Your task to perform on an android device: Open Reddit.com Image 0: 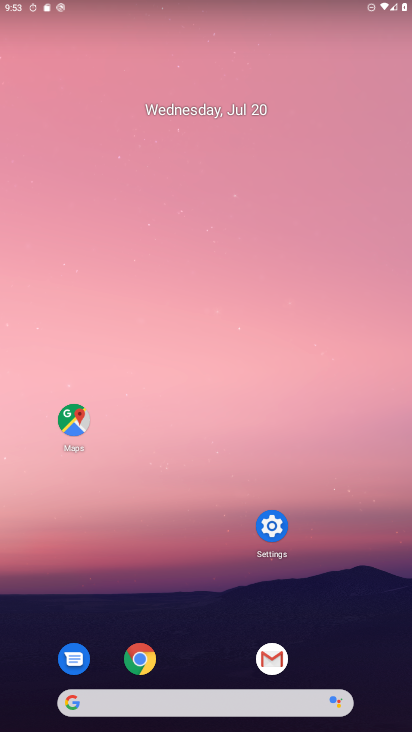
Step 0: press home button
Your task to perform on an android device: Open Reddit.com Image 1: 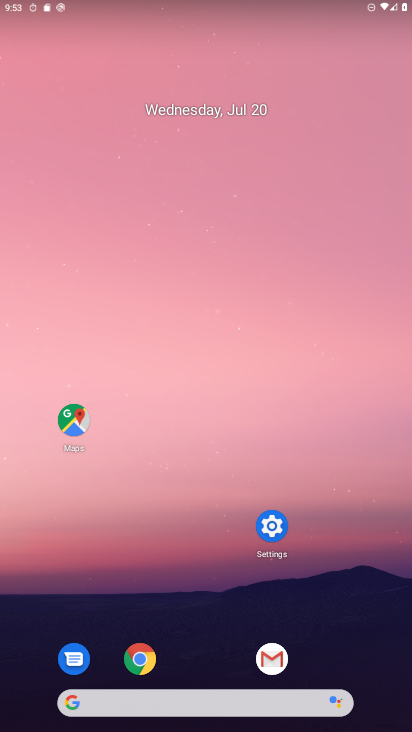
Step 1: click (144, 657)
Your task to perform on an android device: Open Reddit.com Image 2: 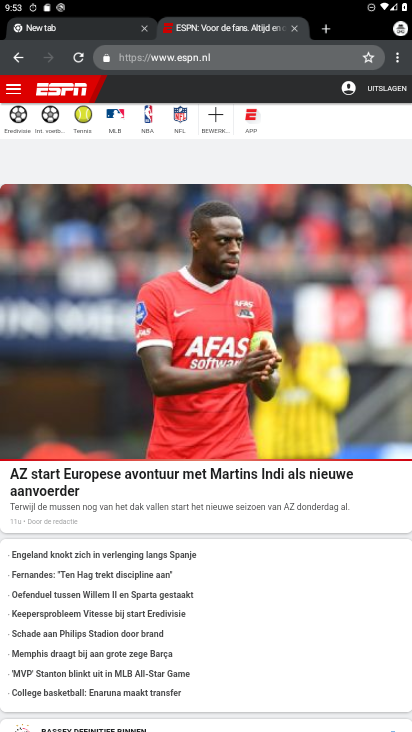
Step 2: click (148, 60)
Your task to perform on an android device: Open Reddit.com Image 3: 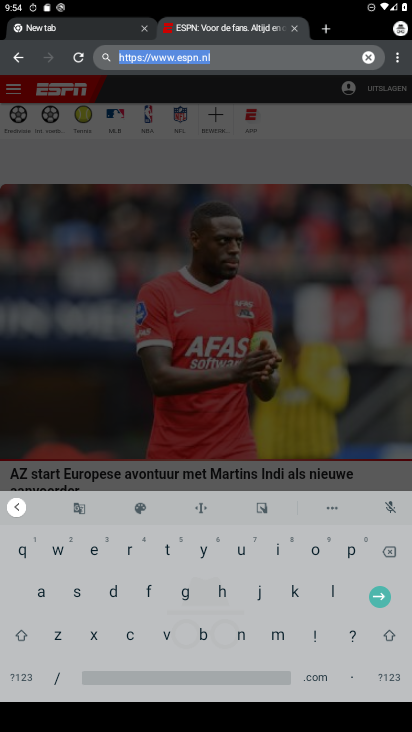
Step 3: click (126, 554)
Your task to perform on an android device: Open Reddit.com Image 4: 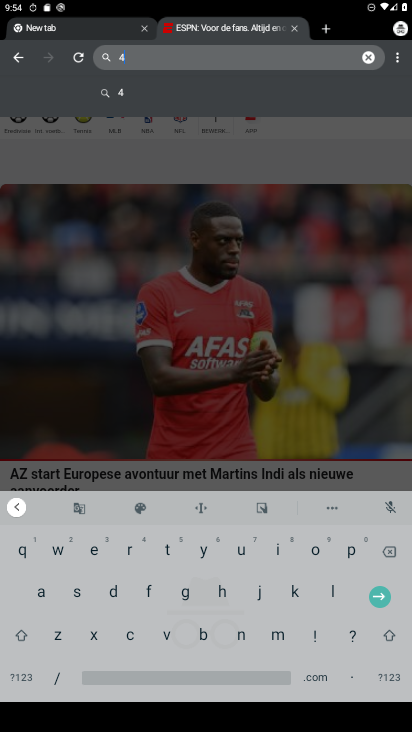
Step 4: click (301, 25)
Your task to perform on an android device: Open Reddit.com Image 5: 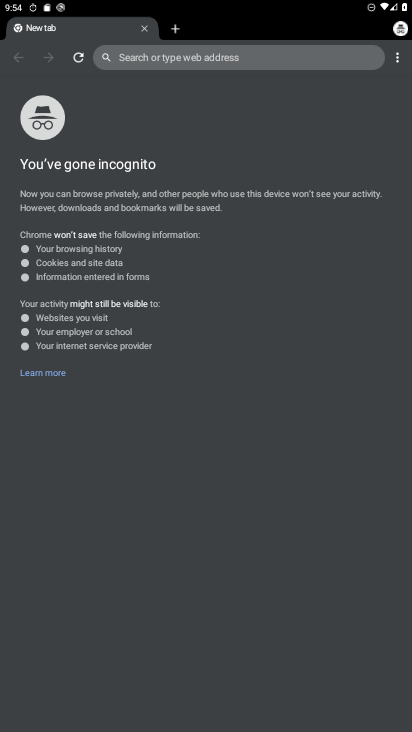
Step 5: click (150, 29)
Your task to perform on an android device: Open Reddit.com Image 6: 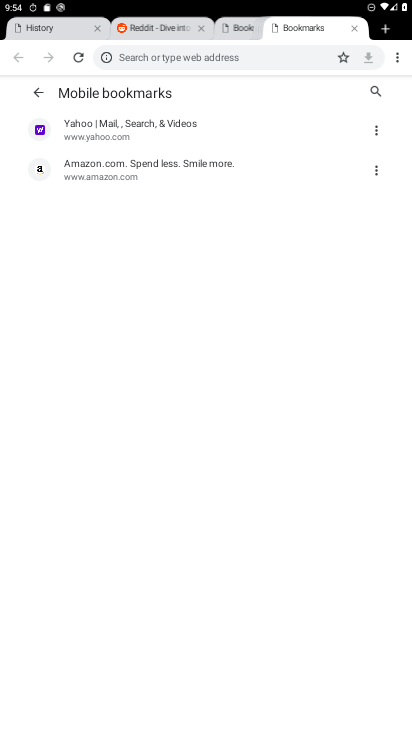
Step 6: click (136, 59)
Your task to perform on an android device: Open Reddit.com Image 7: 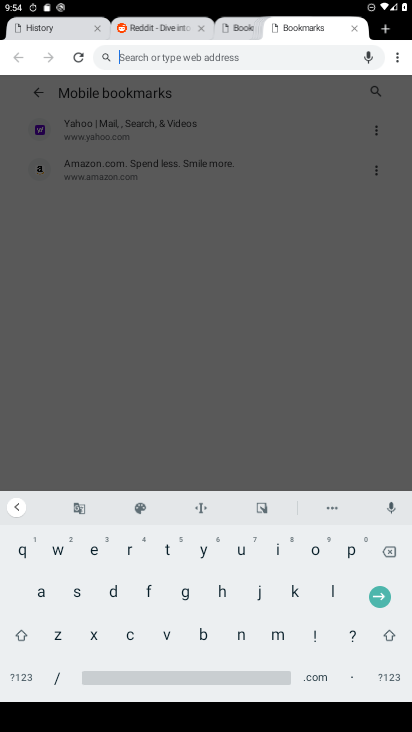
Step 7: click (123, 549)
Your task to perform on an android device: Open Reddit.com Image 8: 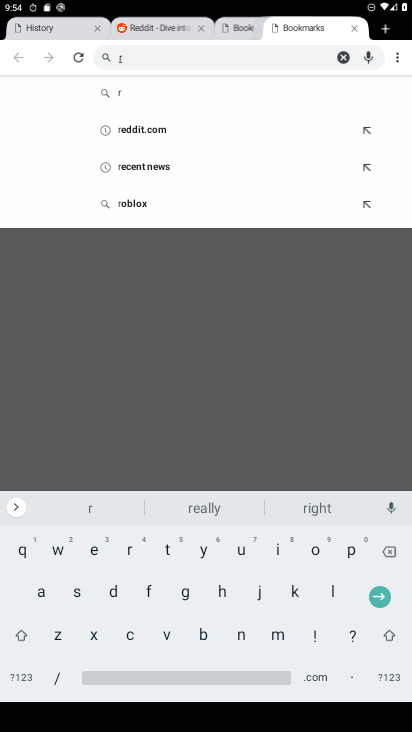
Step 8: click (90, 550)
Your task to perform on an android device: Open Reddit.com Image 9: 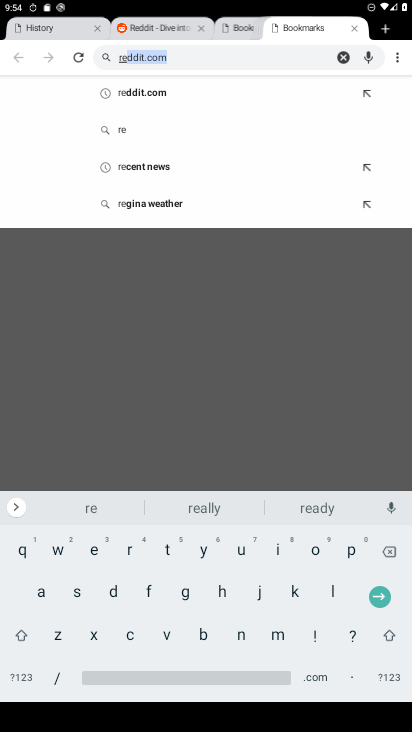
Step 9: click (151, 95)
Your task to perform on an android device: Open Reddit.com Image 10: 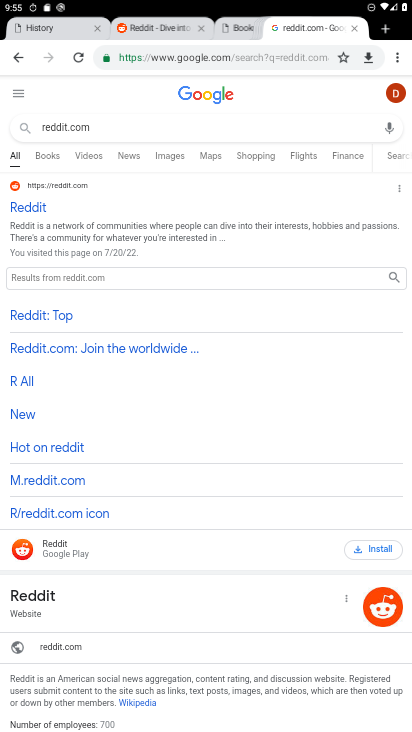
Step 10: click (25, 200)
Your task to perform on an android device: Open Reddit.com Image 11: 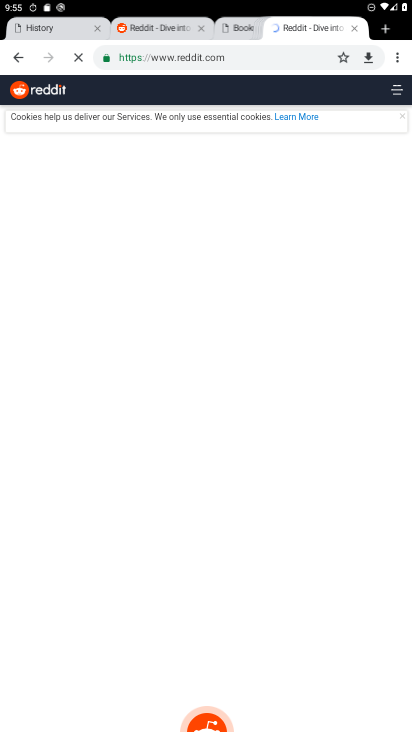
Step 11: task complete